Your task to perform on an android device: turn on showing notifications on the lock screen Image 0: 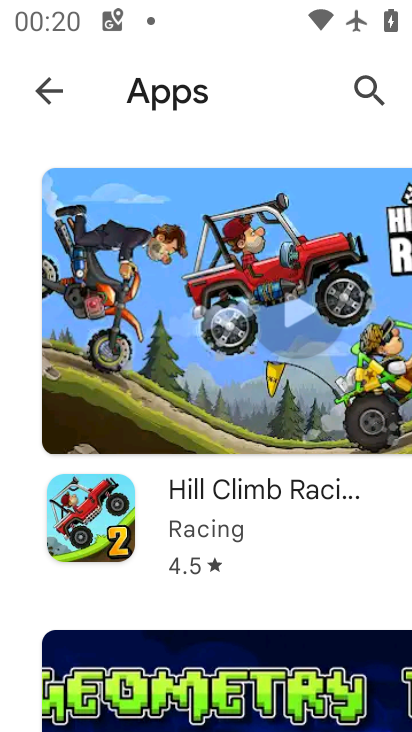
Step 0: press home button
Your task to perform on an android device: turn on showing notifications on the lock screen Image 1: 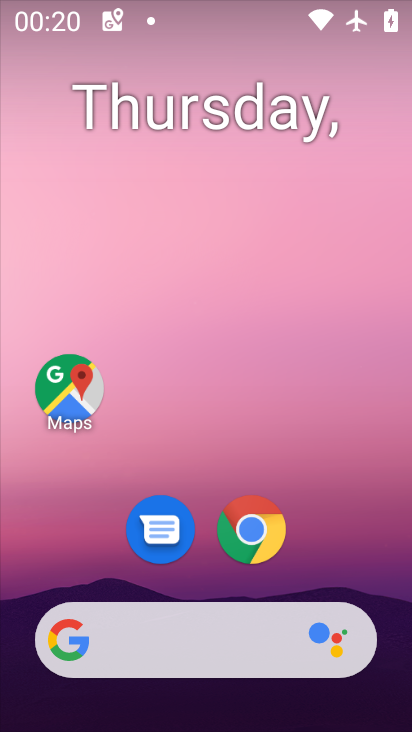
Step 1: drag from (401, 627) to (309, 75)
Your task to perform on an android device: turn on showing notifications on the lock screen Image 2: 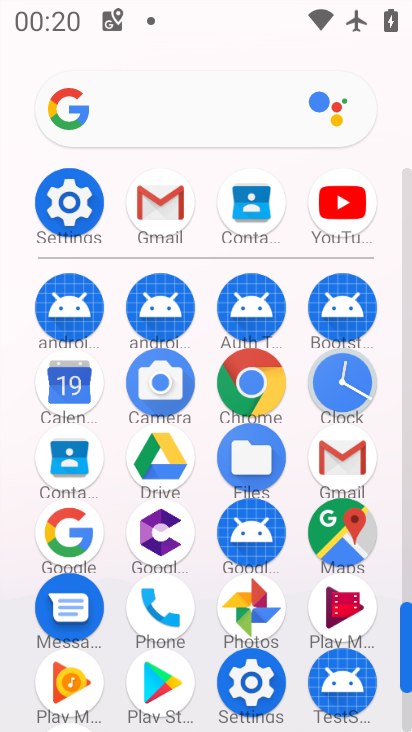
Step 2: click (408, 715)
Your task to perform on an android device: turn on showing notifications on the lock screen Image 3: 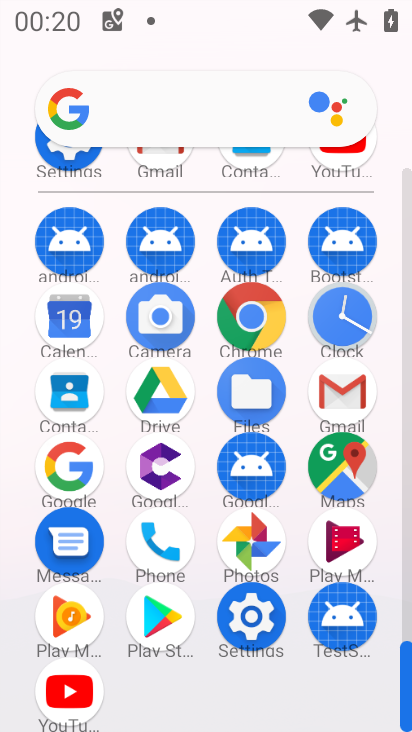
Step 3: click (247, 618)
Your task to perform on an android device: turn on showing notifications on the lock screen Image 4: 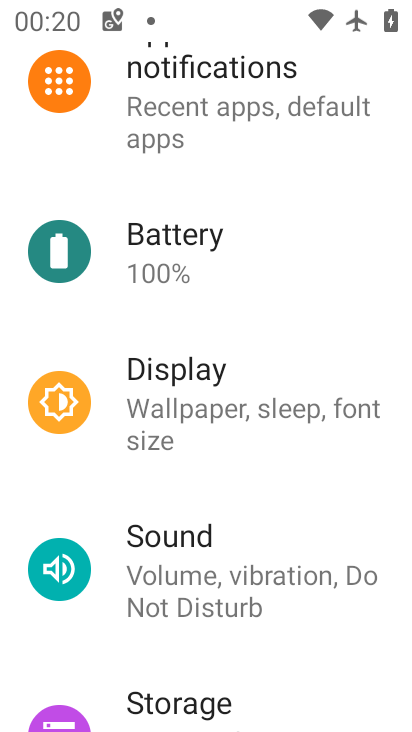
Step 4: click (175, 93)
Your task to perform on an android device: turn on showing notifications on the lock screen Image 5: 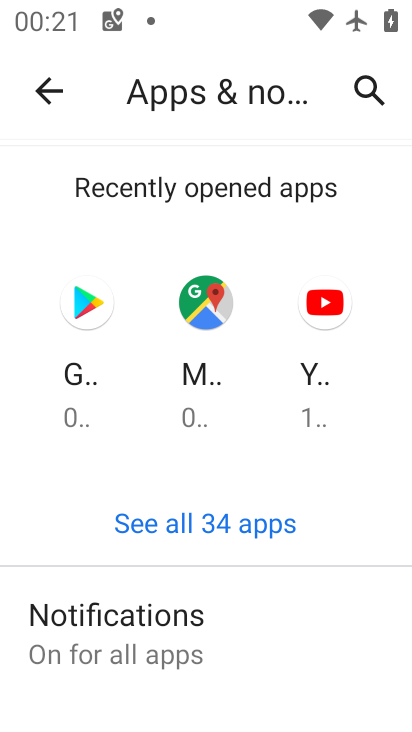
Step 5: drag from (331, 615) to (312, 186)
Your task to perform on an android device: turn on showing notifications on the lock screen Image 6: 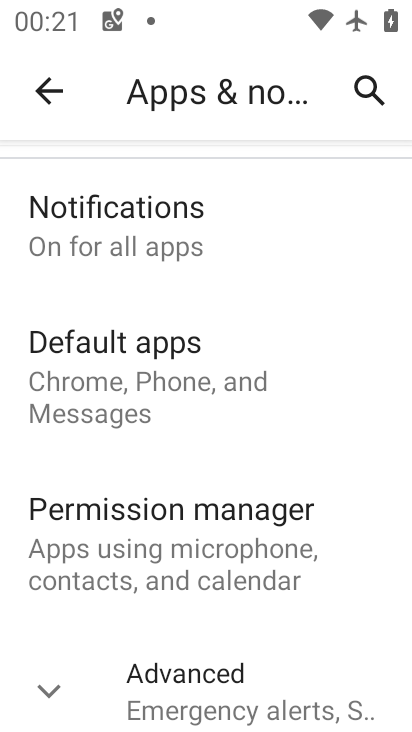
Step 6: click (111, 220)
Your task to perform on an android device: turn on showing notifications on the lock screen Image 7: 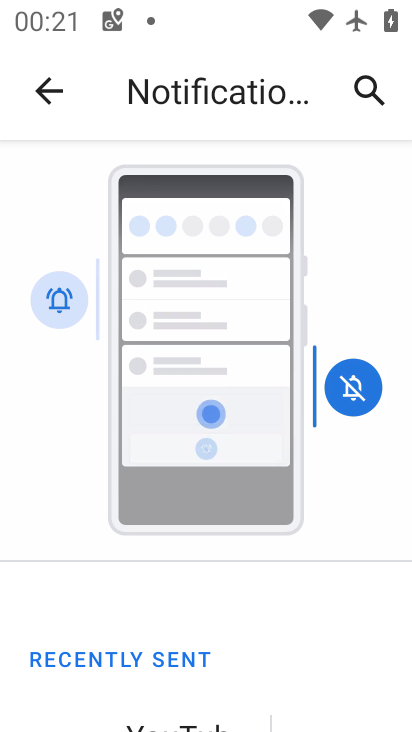
Step 7: drag from (276, 648) to (195, 168)
Your task to perform on an android device: turn on showing notifications on the lock screen Image 8: 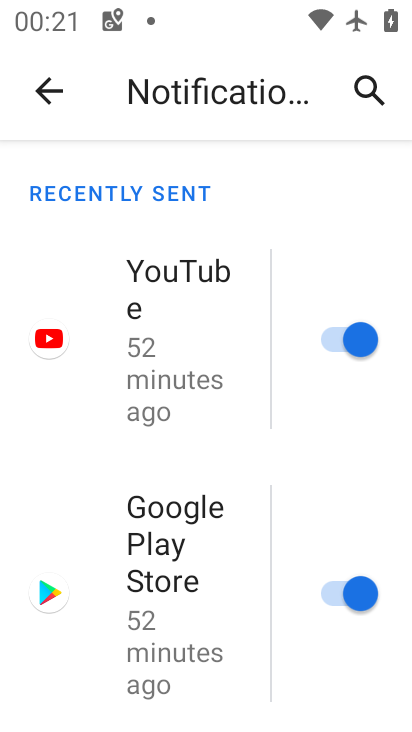
Step 8: drag from (277, 670) to (244, 217)
Your task to perform on an android device: turn on showing notifications on the lock screen Image 9: 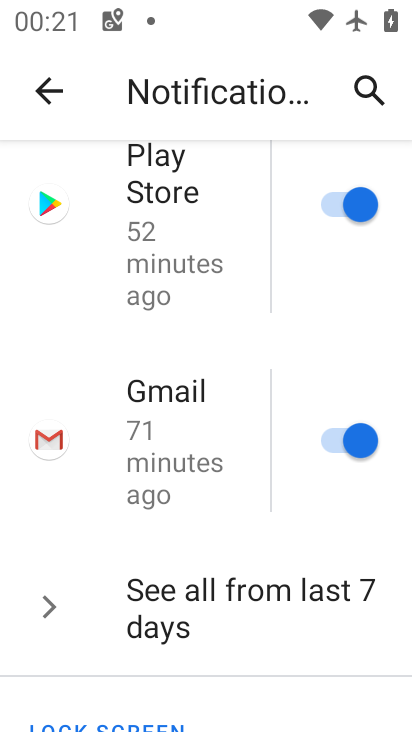
Step 9: drag from (288, 619) to (207, 196)
Your task to perform on an android device: turn on showing notifications on the lock screen Image 10: 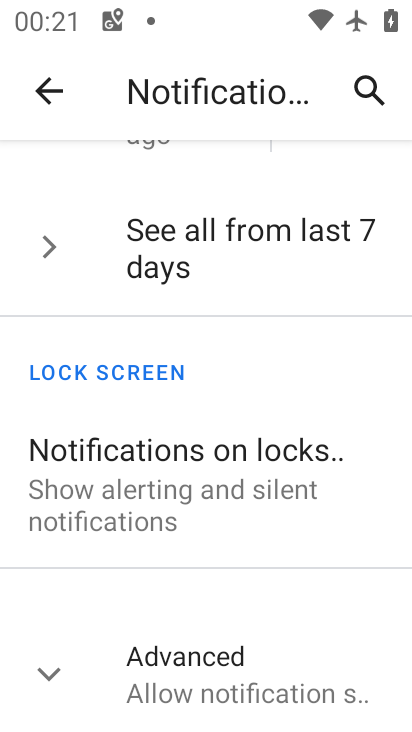
Step 10: click (46, 672)
Your task to perform on an android device: turn on showing notifications on the lock screen Image 11: 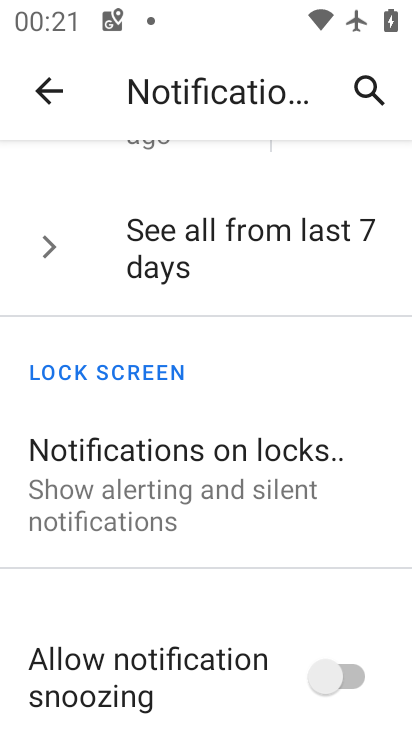
Step 11: click (153, 452)
Your task to perform on an android device: turn on showing notifications on the lock screen Image 12: 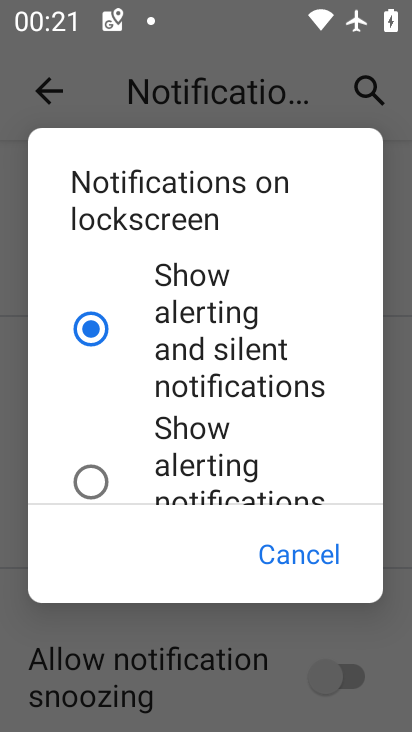
Step 12: task complete